Your task to perform on an android device: turn off notifications in google photos Image 0: 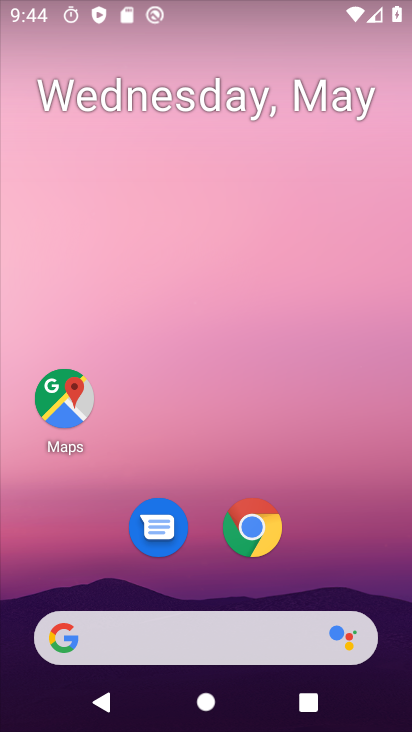
Step 0: drag from (339, 559) to (327, 48)
Your task to perform on an android device: turn off notifications in google photos Image 1: 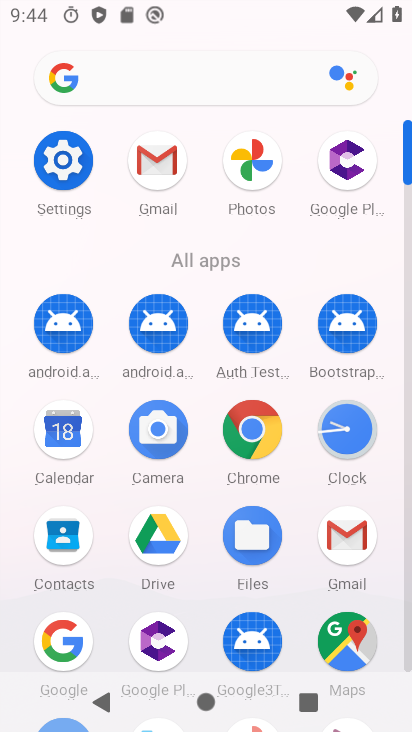
Step 1: click (259, 158)
Your task to perform on an android device: turn off notifications in google photos Image 2: 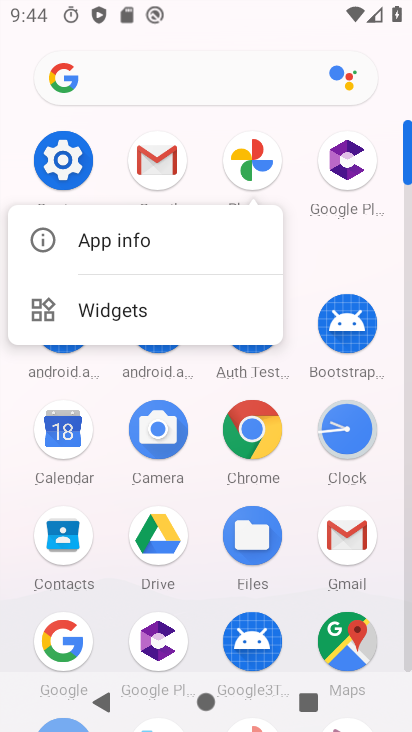
Step 2: click (227, 248)
Your task to perform on an android device: turn off notifications in google photos Image 3: 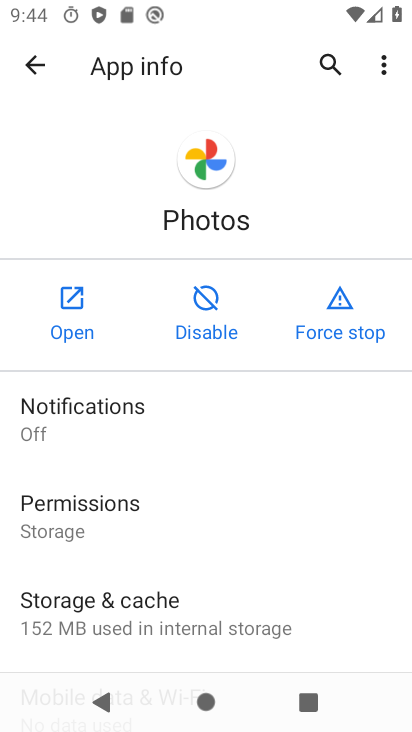
Step 3: click (70, 402)
Your task to perform on an android device: turn off notifications in google photos Image 4: 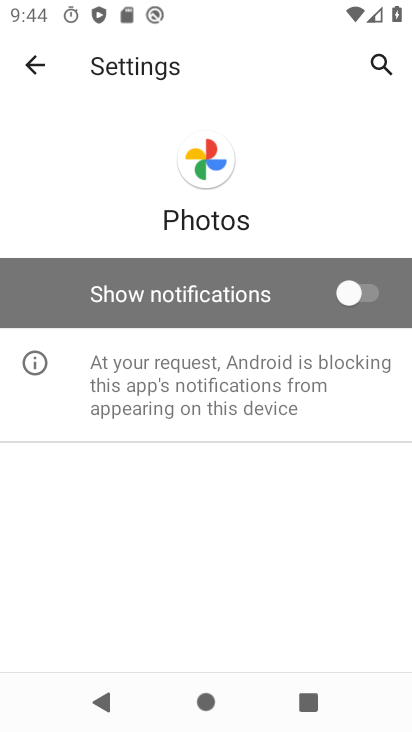
Step 4: task complete